Your task to perform on an android device: open sync settings in chrome Image 0: 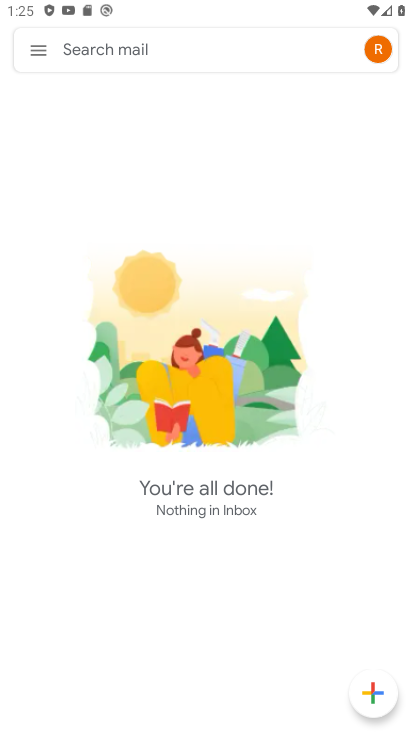
Step 0: press home button
Your task to perform on an android device: open sync settings in chrome Image 1: 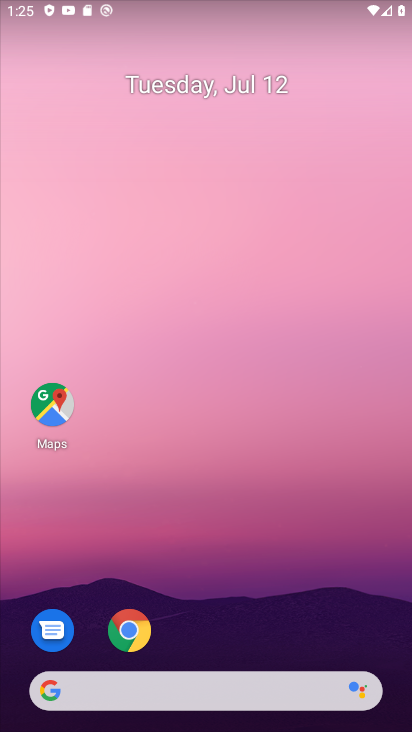
Step 1: click (128, 628)
Your task to perform on an android device: open sync settings in chrome Image 2: 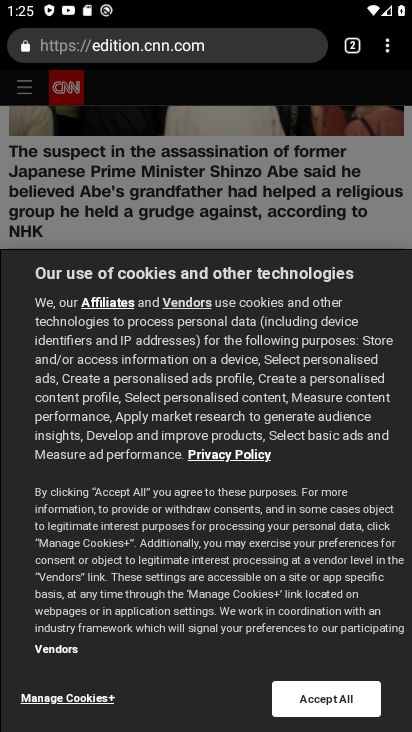
Step 2: click (385, 50)
Your task to perform on an android device: open sync settings in chrome Image 3: 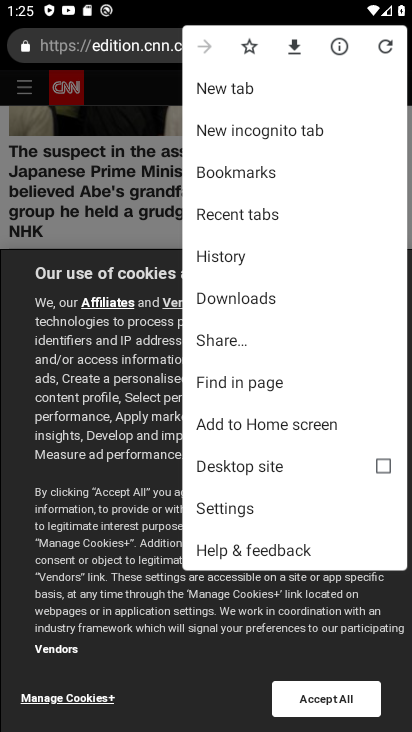
Step 3: click (228, 503)
Your task to perform on an android device: open sync settings in chrome Image 4: 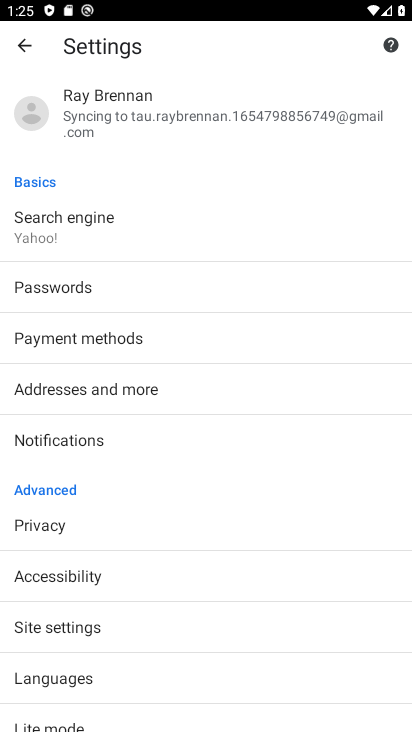
Step 4: click (123, 104)
Your task to perform on an android device: open sync settings in chrome Image 5: 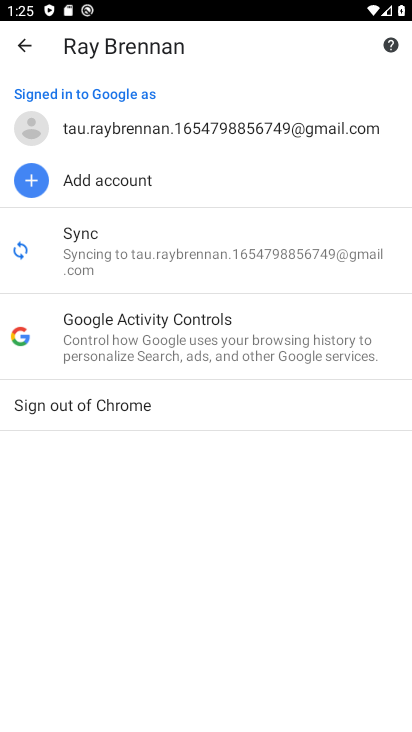
Step 5: click (90, 237)
Your task to perform on an android device: open sync settings in chrome Image 6: 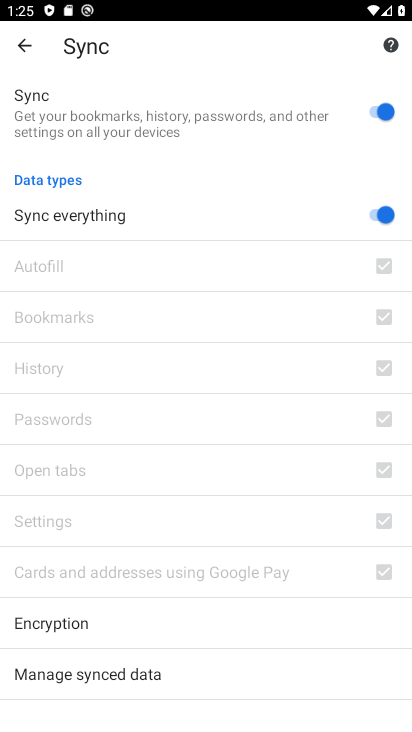
Step 6: task complete